Your task to perform on an android device: Check the weather Image 0: 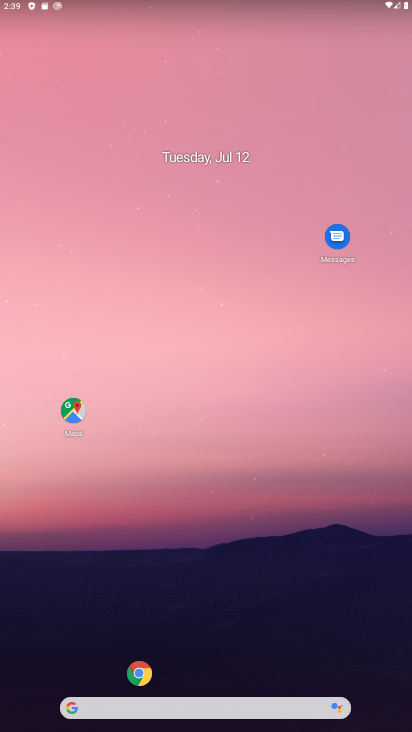
Step 0: click (130, 714)
Your task to perform on an android device: Check the weather Image 1: 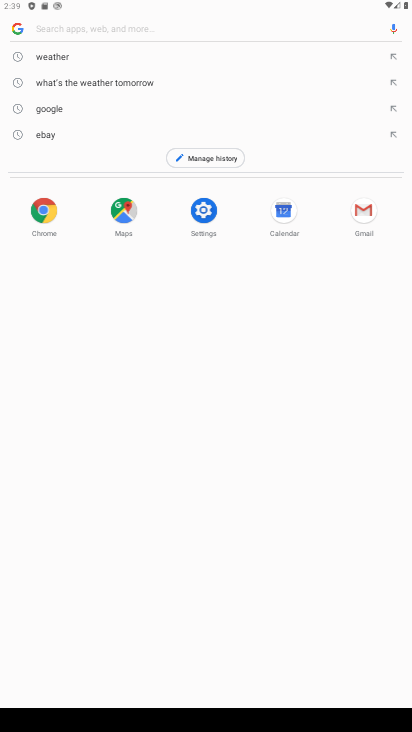
Step 1: click (56, 60)
Your task to perform on an android device: Check the weather Image 2: 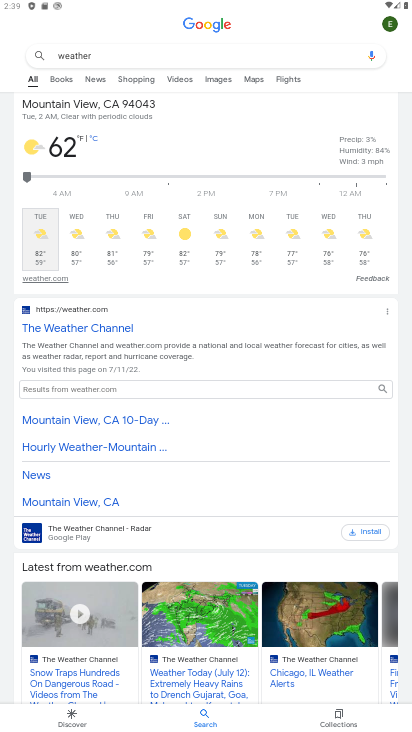
Step 2: task complete